Your task to perform on an android device: Open Wikipedia Image 0: 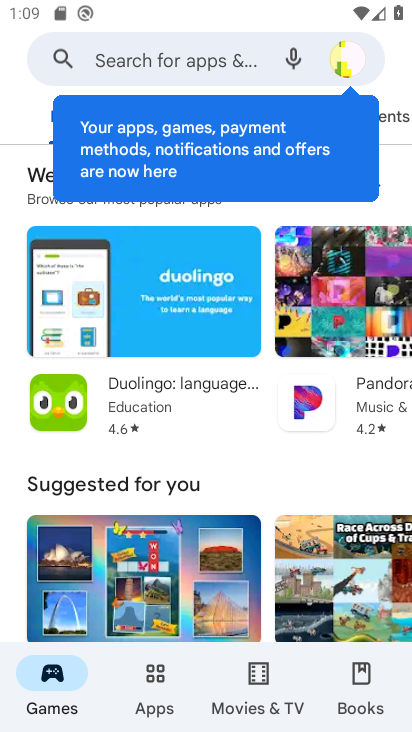
Step 0: press home button
Your task to perform on an android device: Open Wikipedia Image 1: 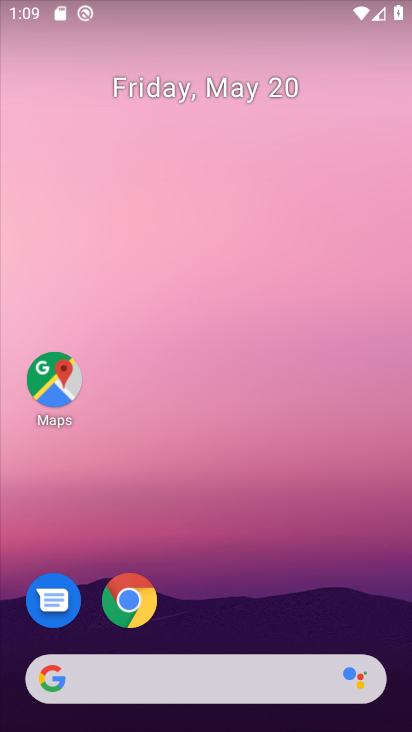
Step 1: click (130, 592)
Your task to perform on an android device: Open Wikipedia Image 2: 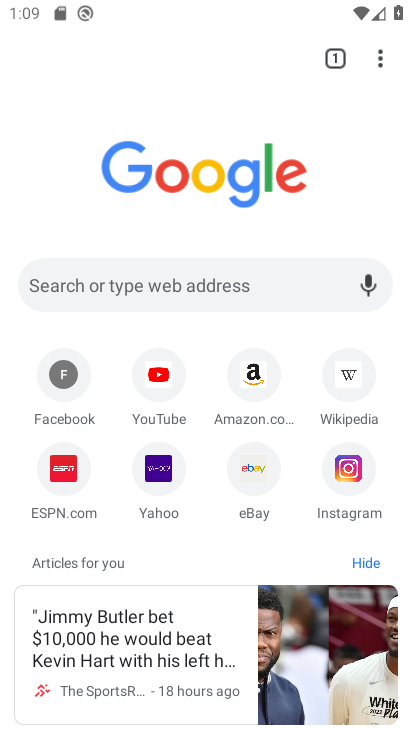
Step 2: click (346, 368)
Your task to perform on an android device: Open Wikipedia Image 3: 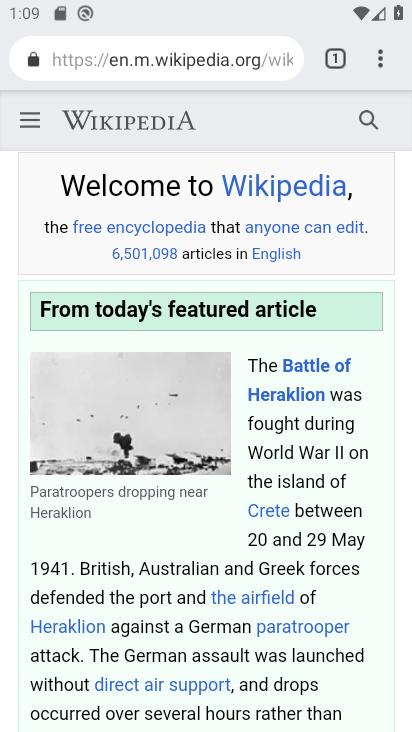
Step 3: task complete